Your task to perform on an android device: Open internet settings Image 0: 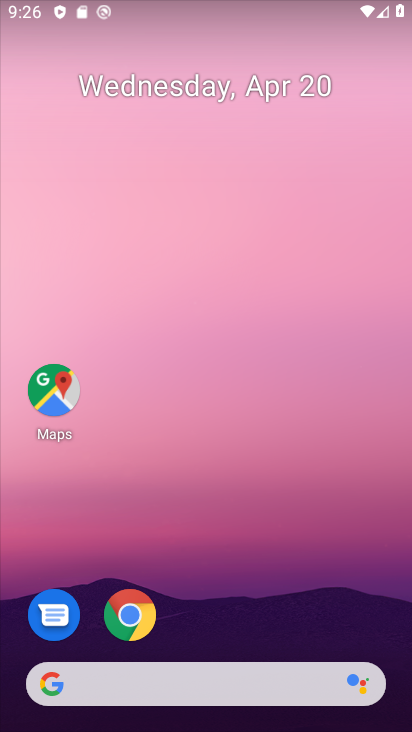
Step 0: drag from (328, 598) to (302, 22)
Your task to perform on an android device: Open internet settings Image 1: 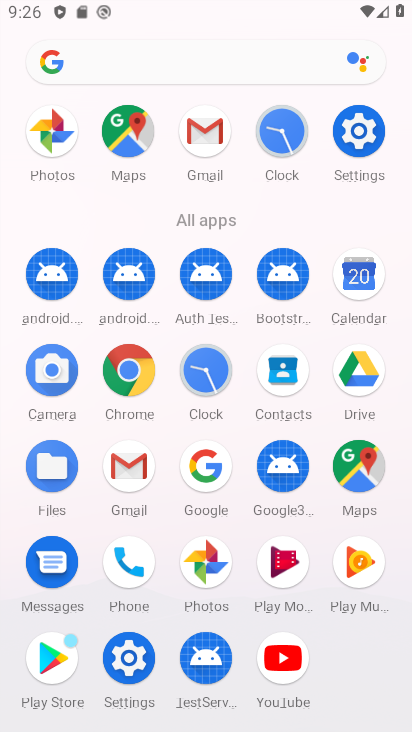
Step 1: click (356, 125)
Your task to perform on an android device: Open internet settings Image 2: 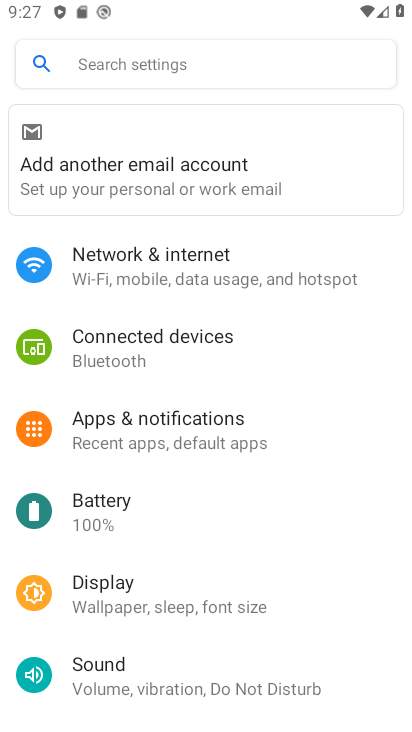
Step 2: click (194, 266)
Your task to perform on an android device: Open internet settings Image 3: 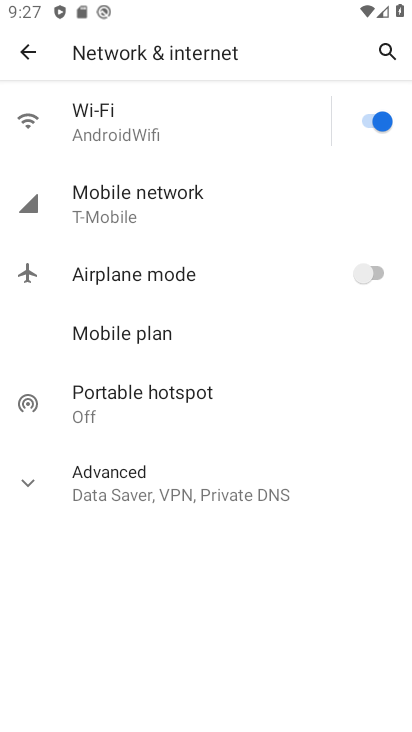
Step 3: task complete